Your task to perform on an android device: Open location settings Image 0: 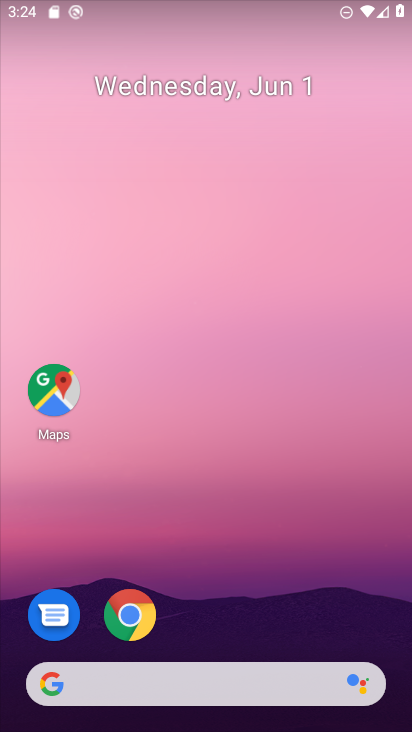
Step 0: drag from (229, 633) to (273, 155)
Your task to perform on an android device: Open location settings Image 1: 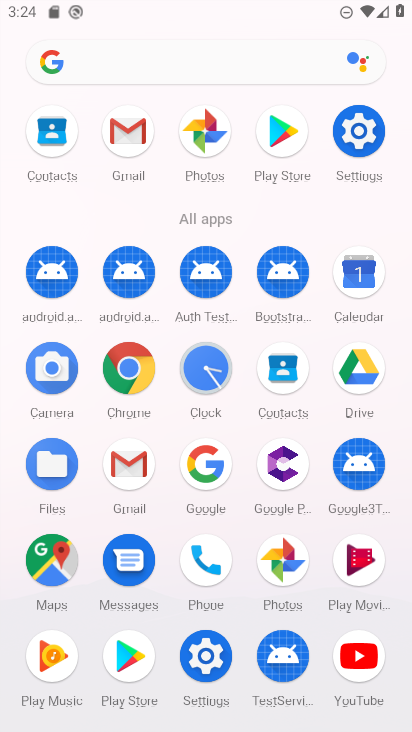
Step 1: click (361, 120)
Your task to perform on an android device: Open location settings Image 2: 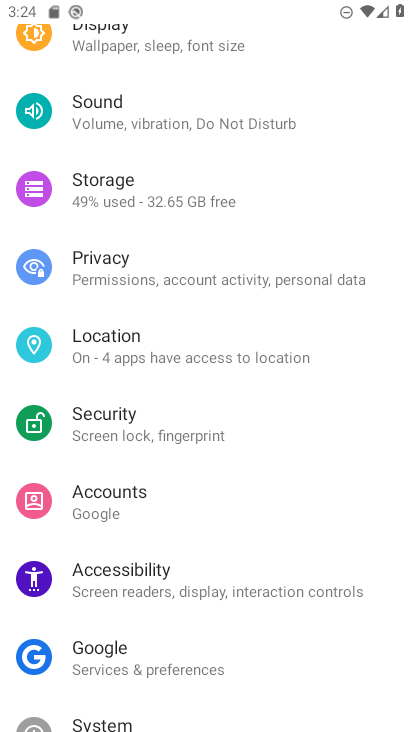
Step 2: click (147, 343)
Your task to perform on an android device: Open location settings Image 3: 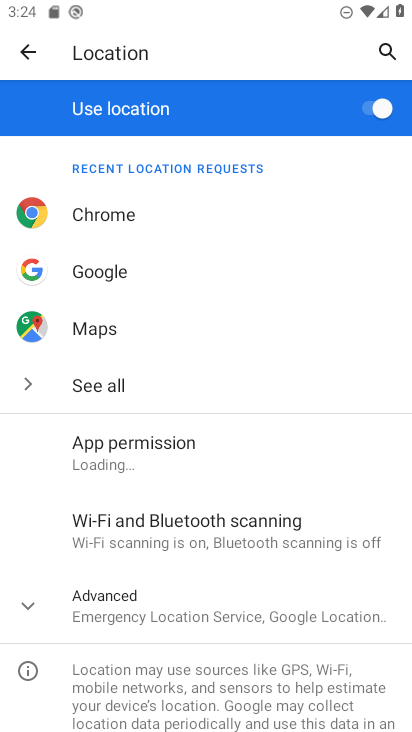
Step 3: click (37, 604)
Your task to perform on an android device: Open location settings Image 4: 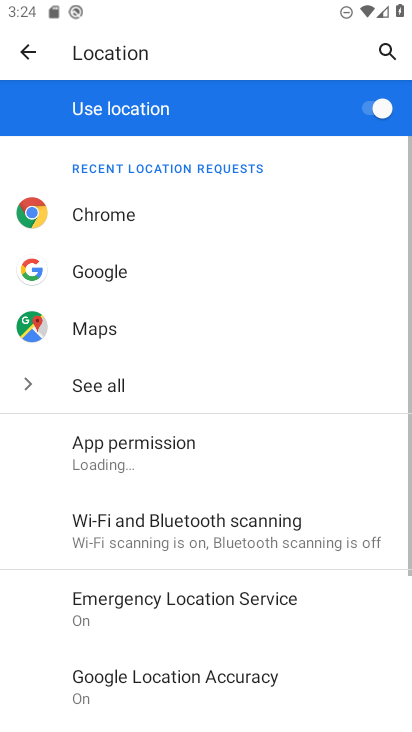
Step 4: task complete